Your task to perform on an android device: Open the phone app and click the voicemail tab. Image 0: 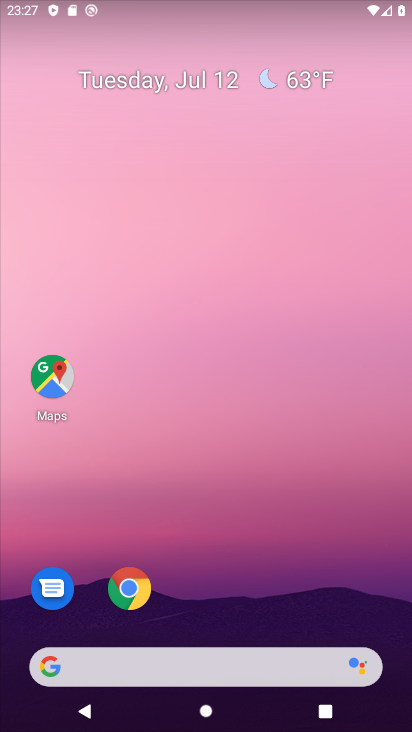
Step 0: drag from (51, 719) to (345, 41)
Your task to perform on an android device: Open the phone app and click the voicemail tab. Image 1: 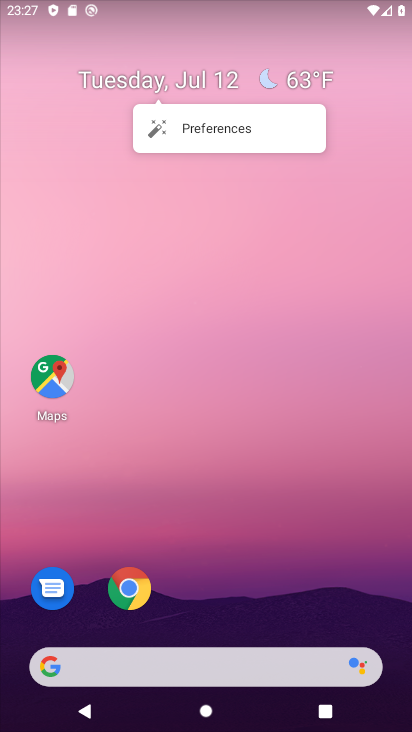
Step 1: task complete